Your task to perform on an android device: turn off javascript in the chrome app Image 0: 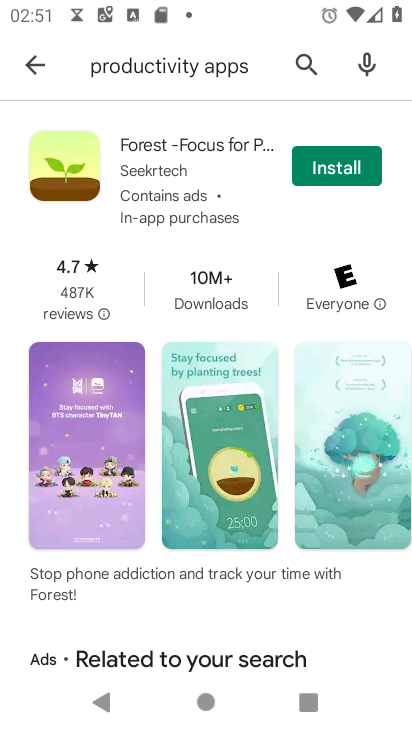
Step 0: press home button
Your task to perform on an android device: turn off javascript in the chrome app Image 1: 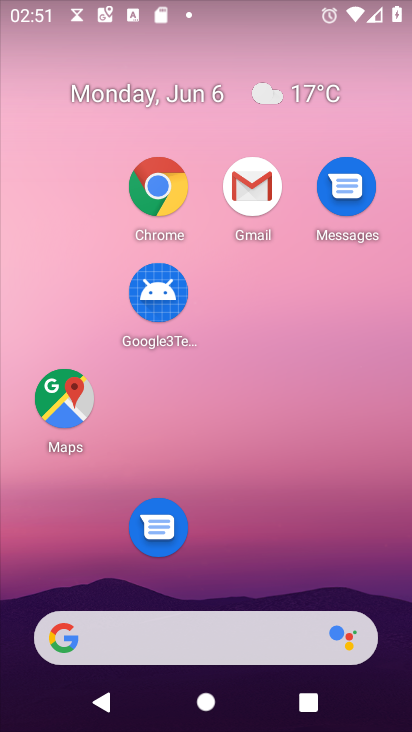
Step 1: click (162, 186)
Your task to perform on an android device: turn off javascript in the chrome app Image 2: 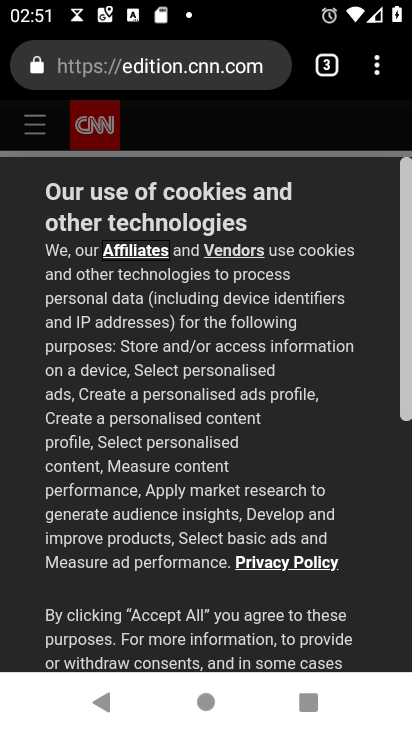
Step 2: click (379, 61)
Your task to perform on an android device: turn off javascript in the chrome app Image 3: 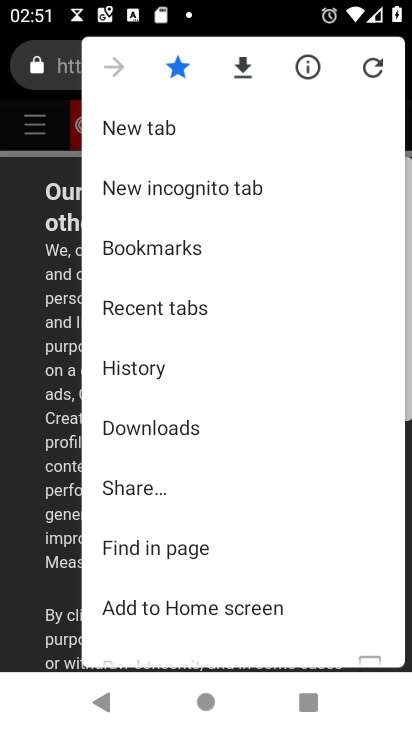
Step 3: drag from (325, 603) to (337, 332)
Your task to perform on an android device: turn off javascript in the chrome app Image 4: 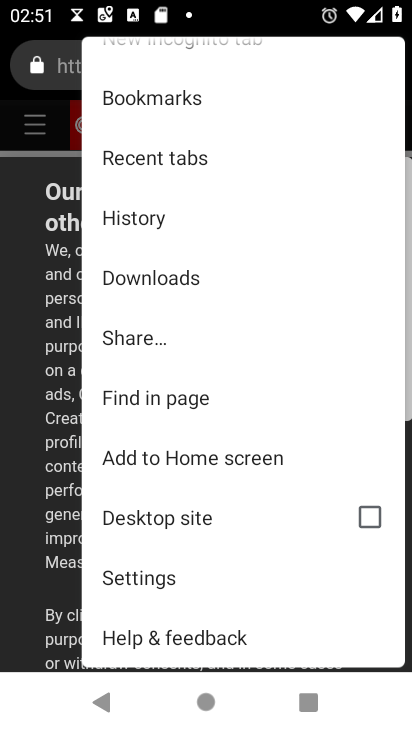
Step 4: click (161, 567)
Your task to perform on an android device: turn off javascript in the chrome app Image 5: 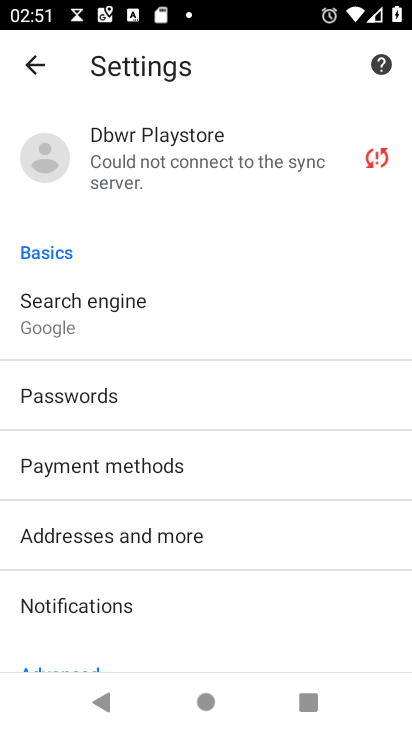
Step 5: drag from (325, 630) to (295, 307)
Your task to perform on an android device: turn off javascript in the chrome app Image 6: 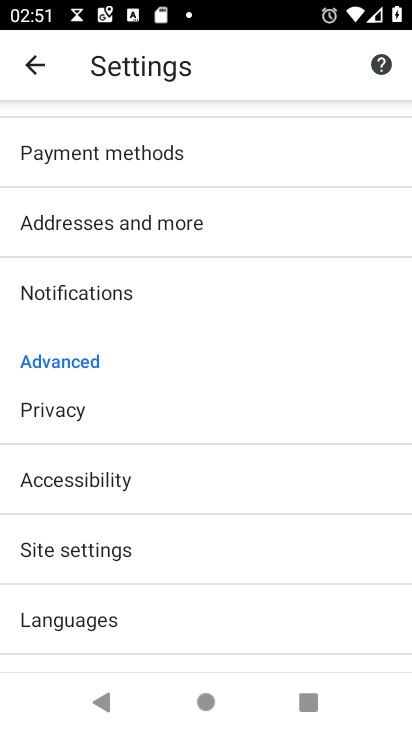
Step 6: click (65, 557)
Your task to perform on an android device: turn off javascript in the chrome app Image 7: 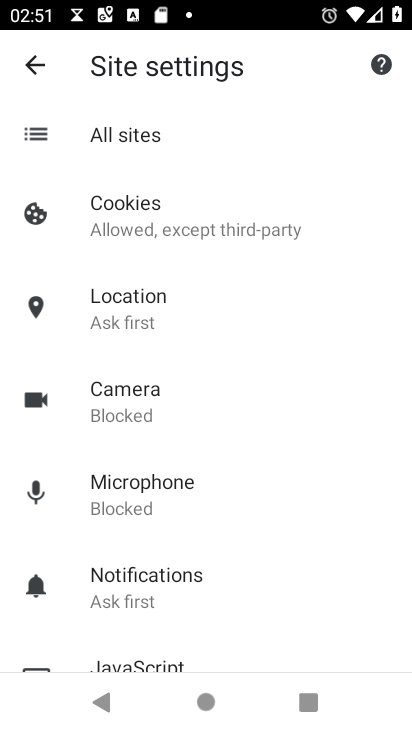
Step 7: click (196, 656)
Your task to perform on an android device: turn off javascript in the chrome app Image 8: 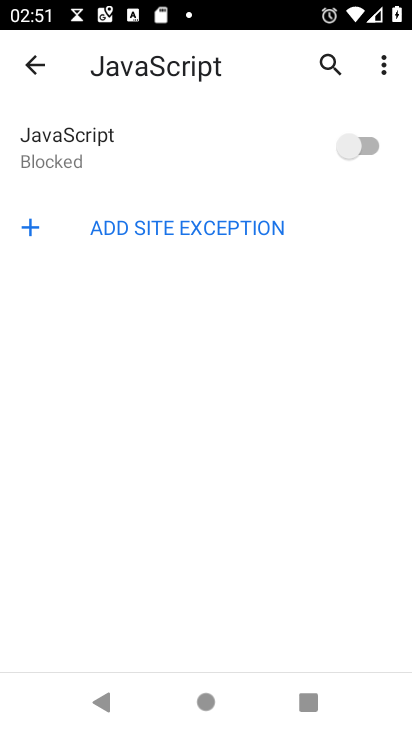
Step 8: task complete